Your task to perform on an android device: Search for sushi restaurants on Maps Image 0: 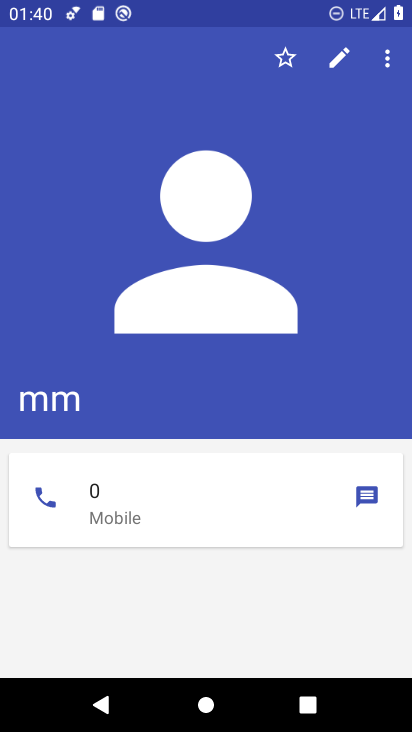
Step 0: press home button
Your task to perform on an android device: Search for sushi restaurants on Maps Image 1: 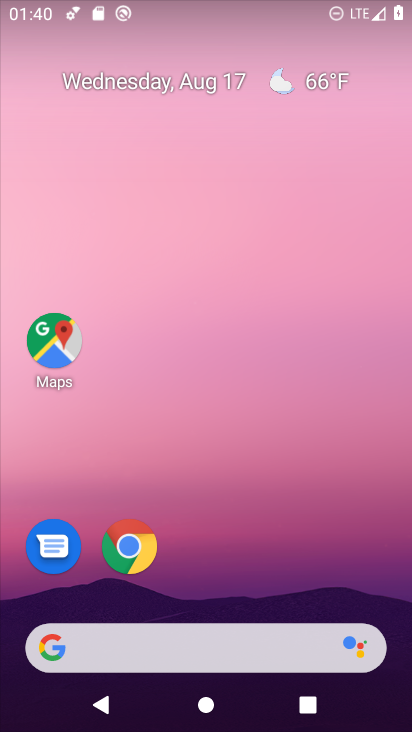
Step 1: click (57, 340)
Your task to perform on an android device: Search for sushi restaurants on Maps Image 2: 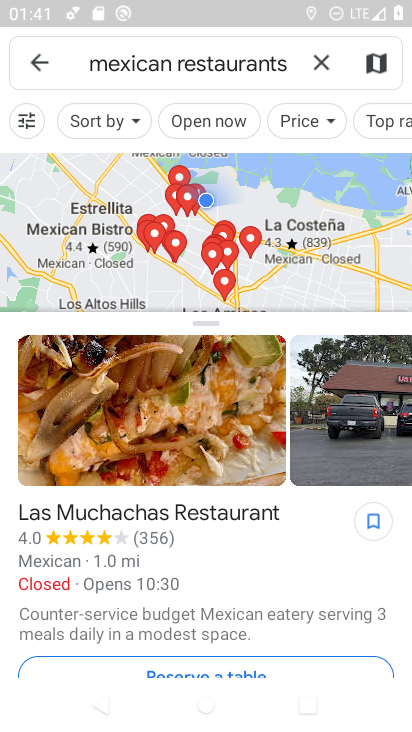
Step 2: click (323, 60)
Your task to perform on an android device: Search for sushi restaurants on Maps Image 3: 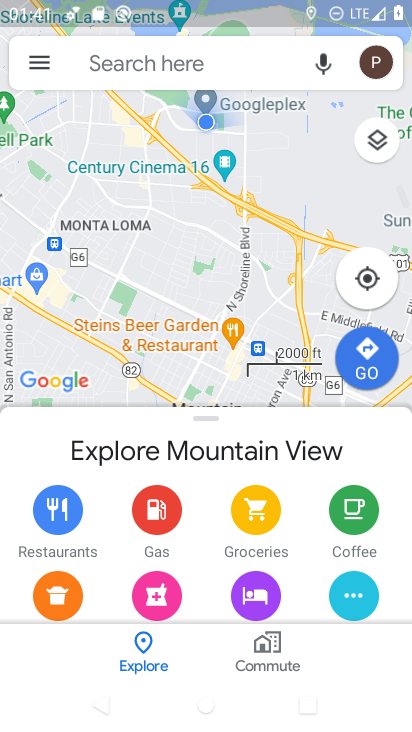
Step 3: click (215, 56)
Your task to perform on an android device: Search for sushi restaurants on Maps Image 4: 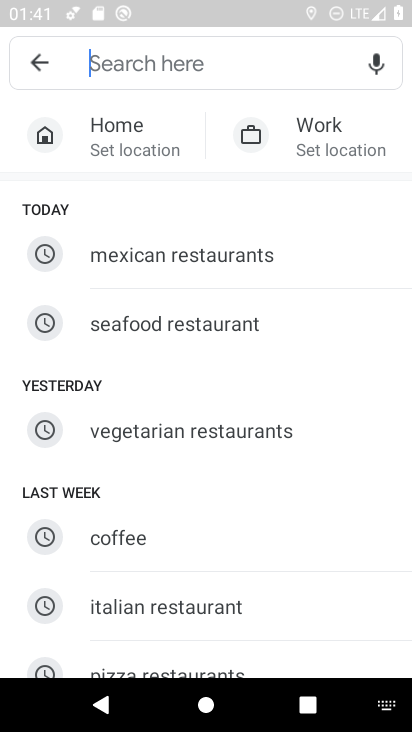
Step 4: type "sushi restaurants"
Your task to perform on an android device: Search for sushi restaurants on Maps Image 5: 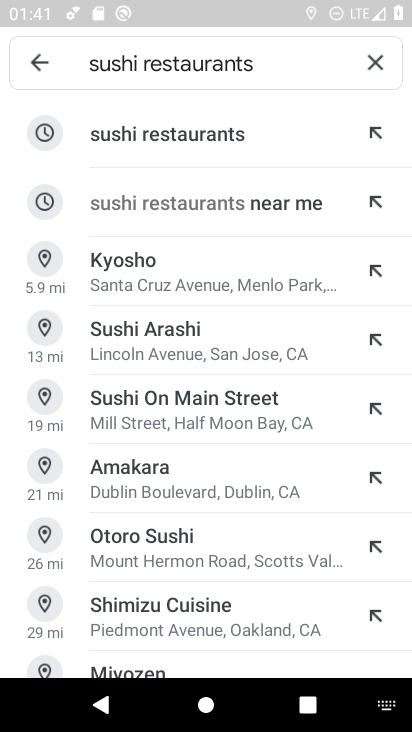
Step 5: click (201, 137)
Your task to perform on an android device: Search for sushi restaurants on Maps Image 6: 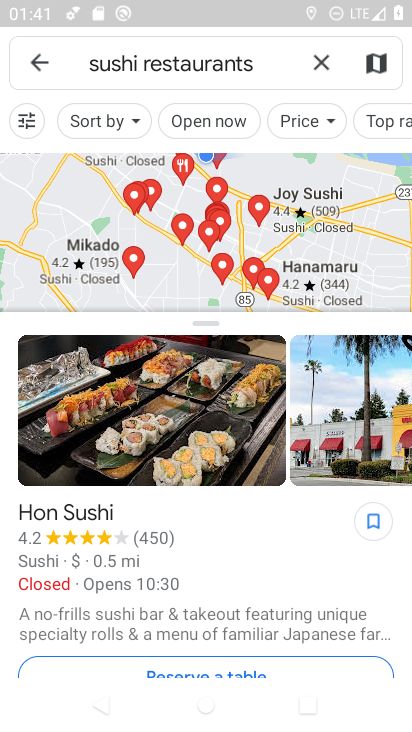
Step 6: task complete